Your task to perform on an android device: Open the Play Movies app and select the watchlist tab. Image 0: 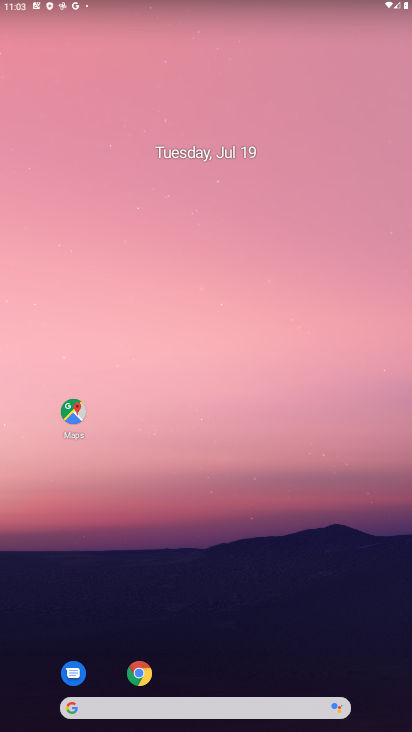
Step 0: task complete